Your task to perform on an android device: clear all cookies in the chrome app Image 0: 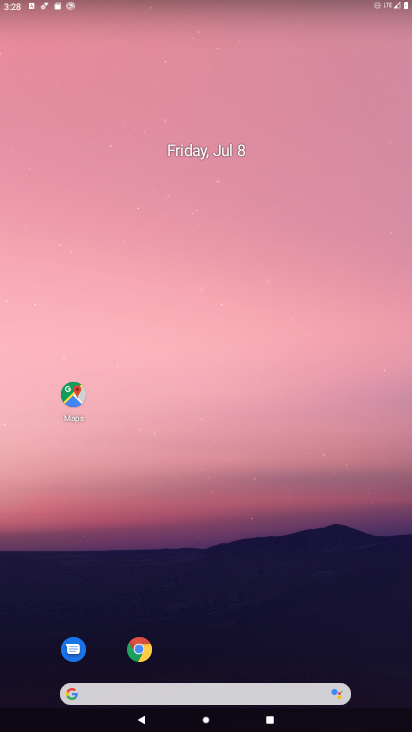
Step 0: click (141, 654)
Your task to perform on an android device: clear all cookies in the chrome app Image 1: 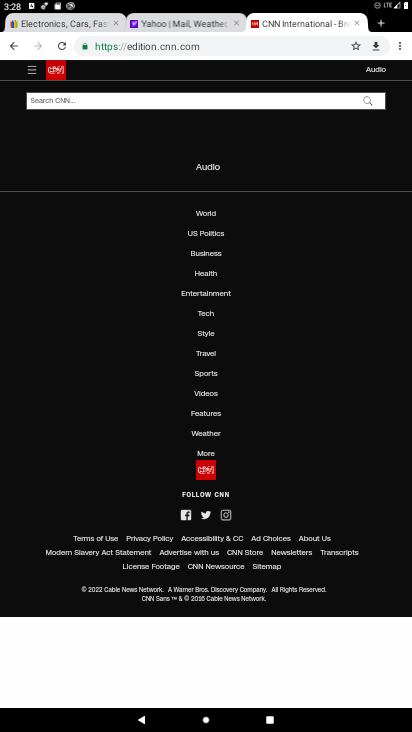
Step 1: click (401, 48)
Your task to perform on an android device: clear all cookies in the chrome app Image 2: 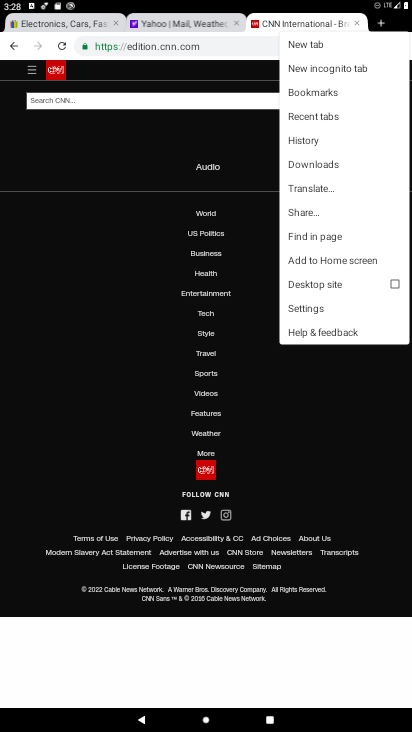
Step 2: click (299, 142)
Your task to perform on an android device: clear all cookies in the chrome app Image 3: 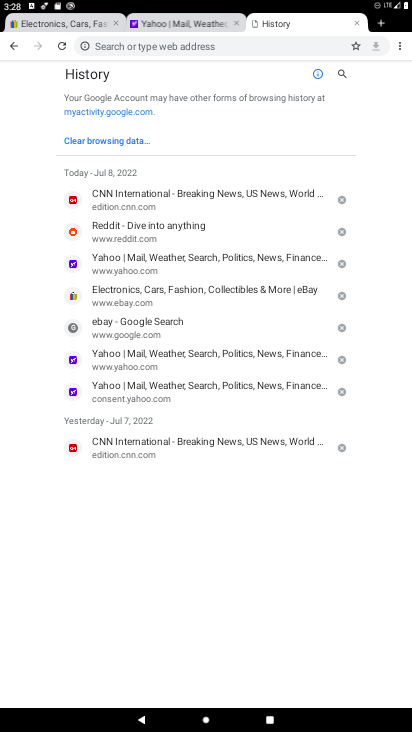
Step 3: click (106, 142)
Your task to perform on an android device: clear all cookies in the chrome app Image 4: 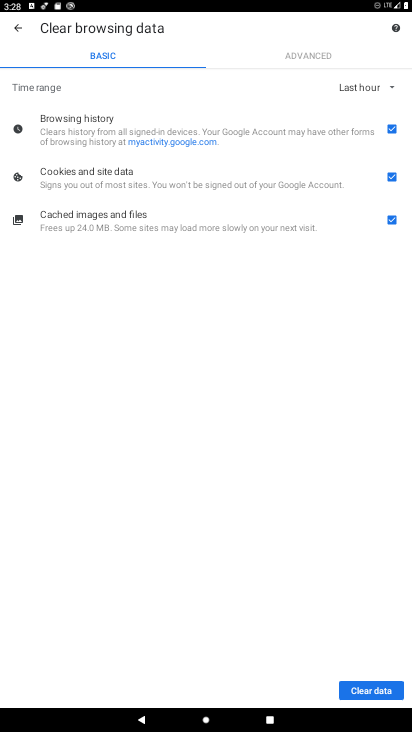
Step 4: click (389, 126)
Your task to perform on an android device: clear all cookies in the chrome app Image 5: 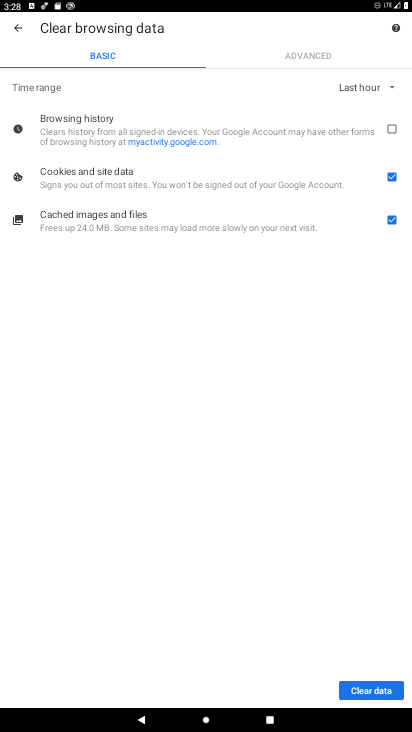
Step 5: click (389, 218)
Your task to perform on an android device: clear all cookies in the chrome app Image 6: 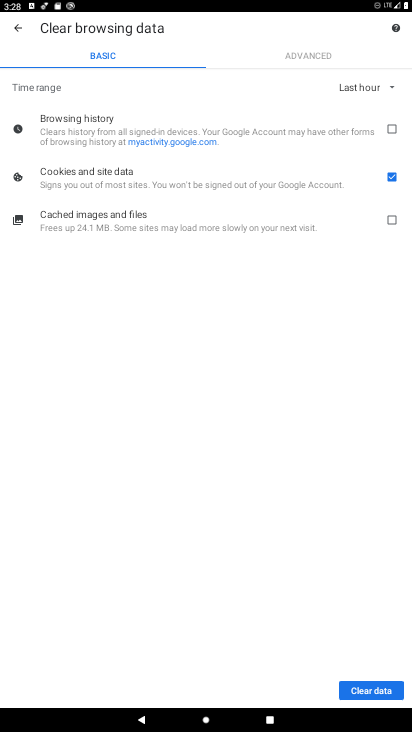
Step 6: click (372, 695)
Your task to perform on an android device: clear all cookies in the chrome app Image 7: 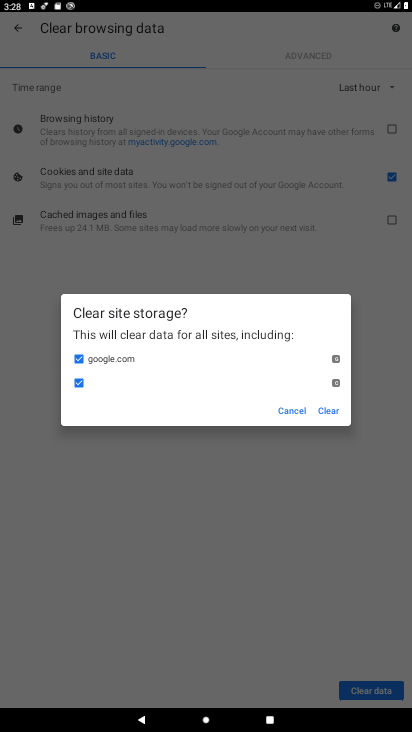
Step 7: click (327, 407)
Your task to perform on an android device: clear all cookies in the chrome app Image 8: 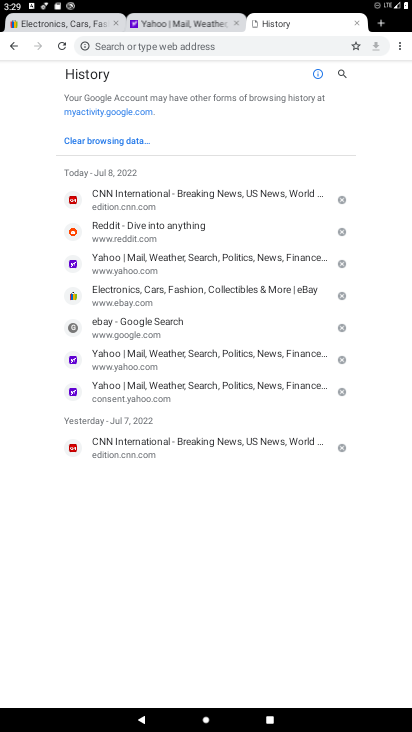
Step 8: task complete